Your task to perform on an android device: Open sound settings Image 0: 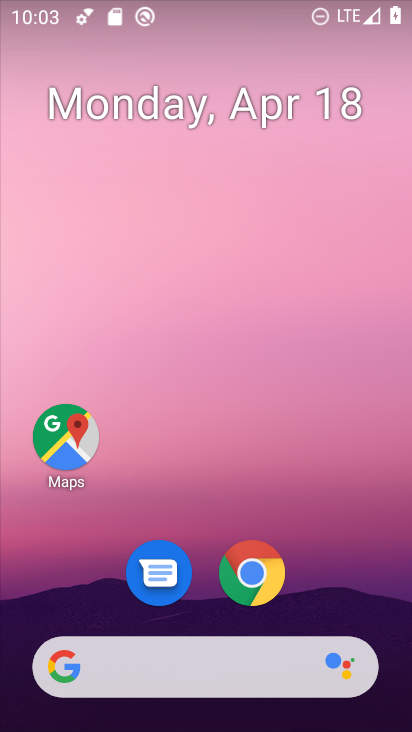
Step 0: drag from (370, 605) to (214, 110)
Your task to perform on an android device: Open sound settings Image 1: 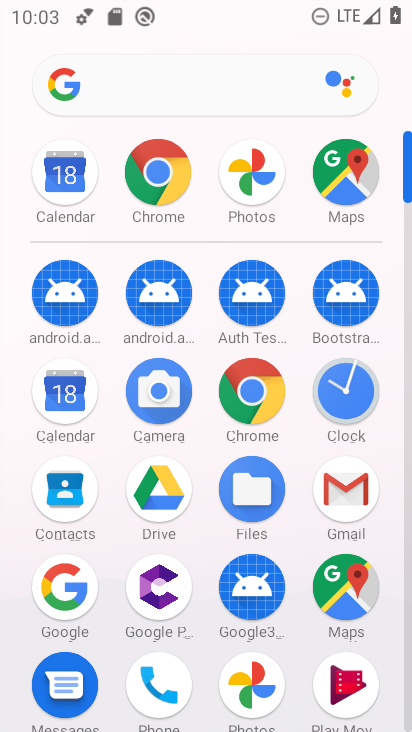
Step 1: click (407, 718)
Your task to perform on an android device: Open sound settings Image 2: 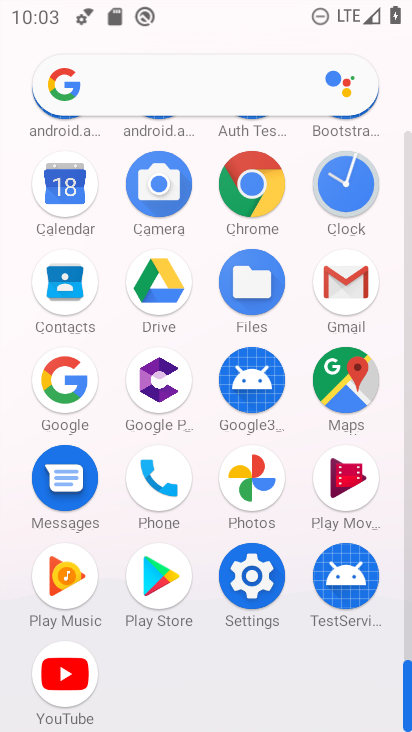
Step 2: click (243, 577)
Your task to perform on an android device: Open sound settings Image 3: 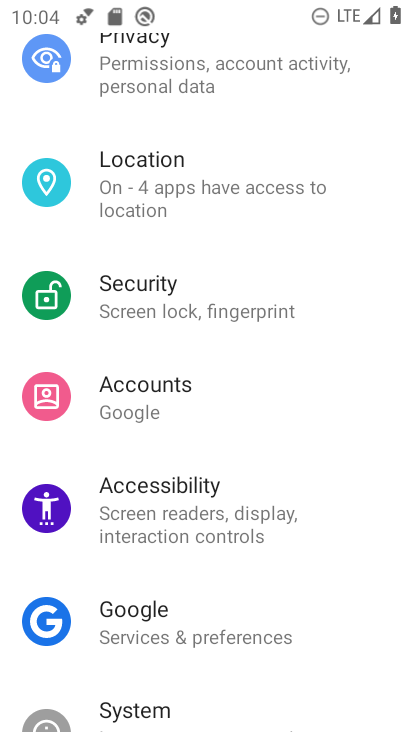
Step 3: drag from (144, 633) to (201, 108)
Your task to perform on an android device: Open sound settings Image 4: 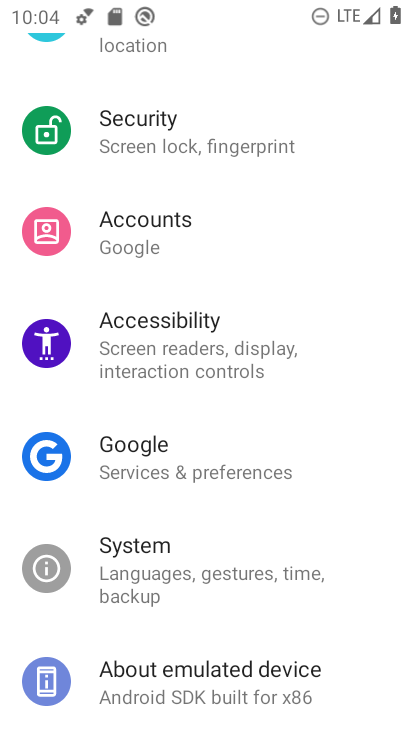
Step 4: drag from (196, 168) to (202, 674)
Your task to perform on an android device: Open sound settings Image 5: 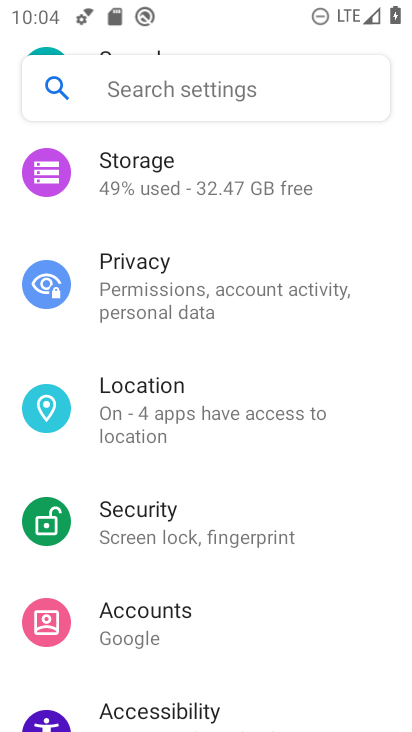
Step 5: drag from (166, 254) to (162, 692)
Your task to perform on an android device: Open sound settings Image 6: 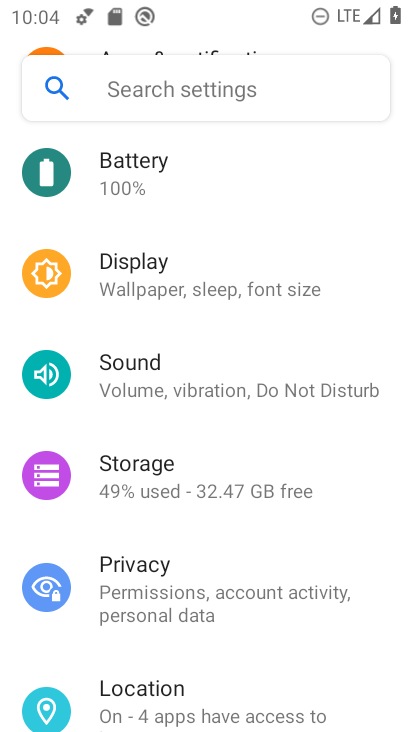
Step 6: click (140, 411)
Your task to perform on an android device: Open sound settings Image 7: 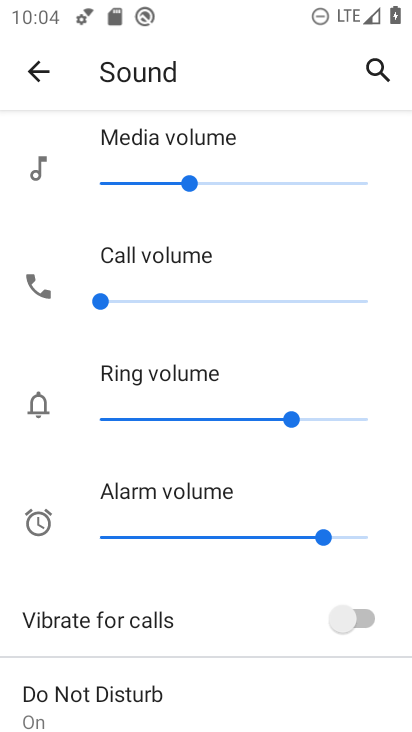
Step 7: task complete